Your task to perform on an android device: Go to Google Image 0: 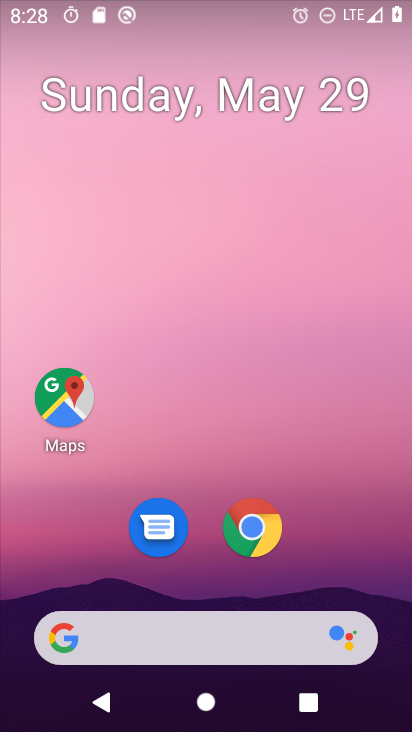
Step 0: drag from (379, 634) to (357, 37)
Your task to perform on an android device: Go to Google Image 1: 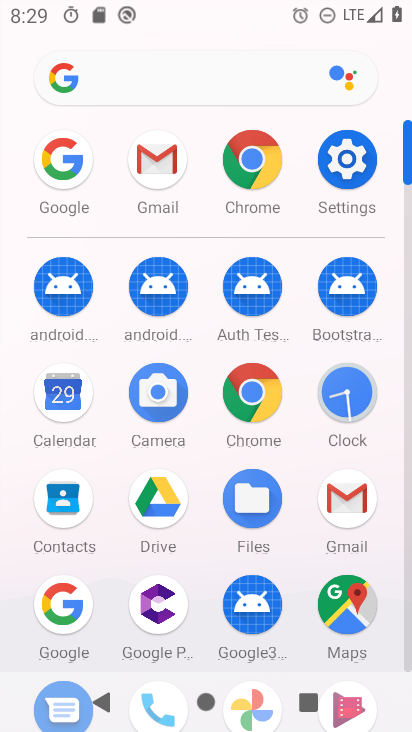
Step 1: click (55, 586)
Your task to perform on an android device: Go to Google Image 2: 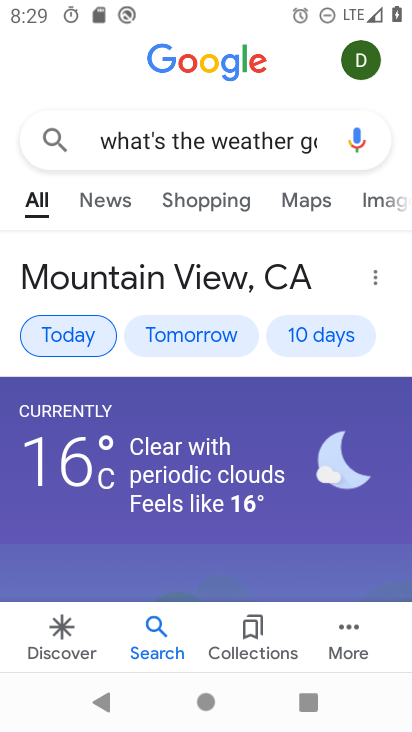
Step 2: task complete